Your task to perform on an android device: toggle pop-ups in chrome Image 0: 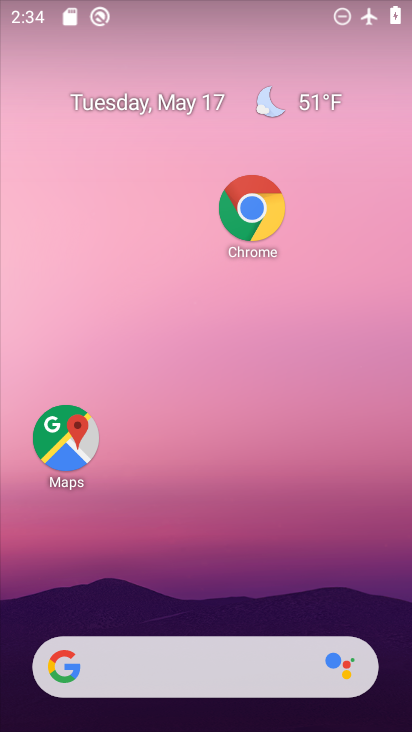
Step 0: click (257, 223)
Your task to perform on an android device: toggle pop-ups in chrome Image 1: 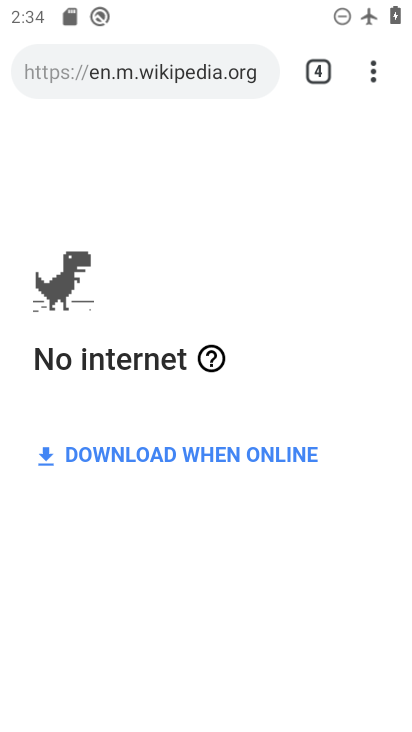
Step 1: drag from (378, 67) to (108, 581)
Your task to perform on an android device: toggle pop-ups in chrome Image 2: 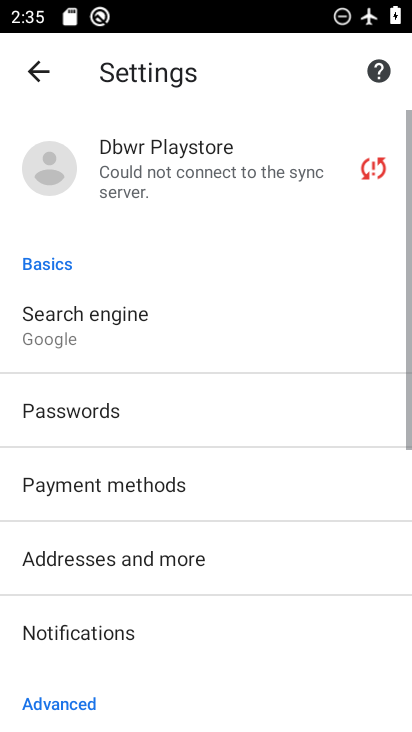
Step 2: drag from (121, 580) to (117, 133)
Your task to perform on an android device: toggle pop-ups in chrome Image 3: 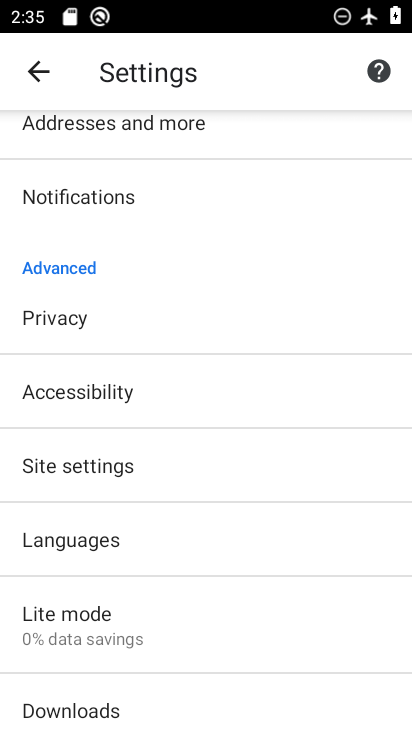
Step 3: drag from (100, 625) to (89, 447)
Your task to perform on an android device: toggle pop-ups in chrome Image 4: 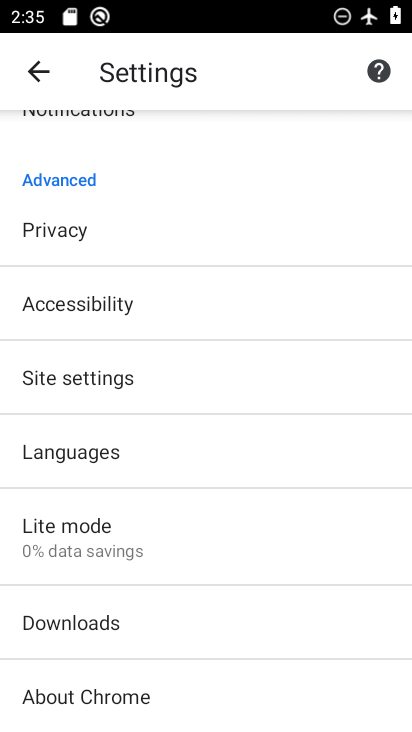
Step 4: click (93, 360)
Your task to perform on an android device: toggle pop-ups in chrome Image 5: 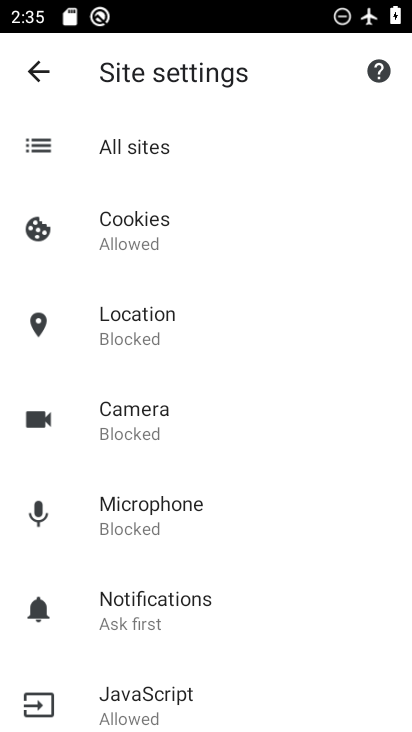
Step 5: drag from (160, 606) to (158, 154)
Your task to perform on an android device: toggle pop-ups in chrome Image 6: 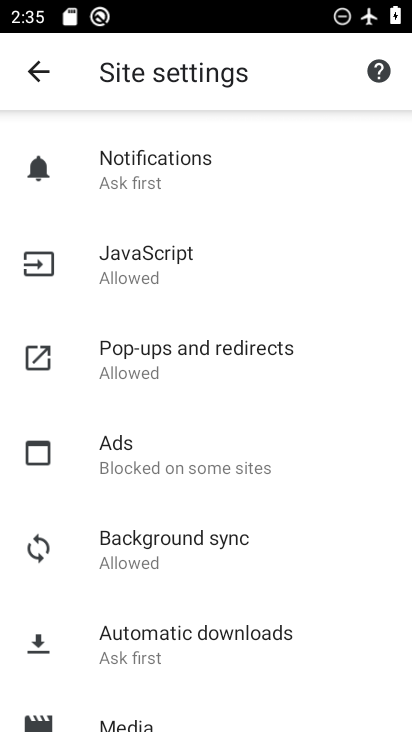
Step 6: click (202, 351)
Your task to perform on an android device: toggle pop-ups in chrome Image 7: 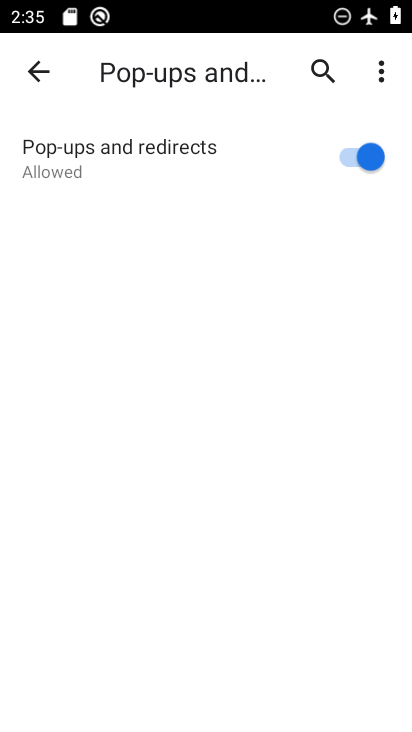
Step 7: click (348, 144)
Your task to perform on an android device: toggle pop-ups in chrome Image 8: 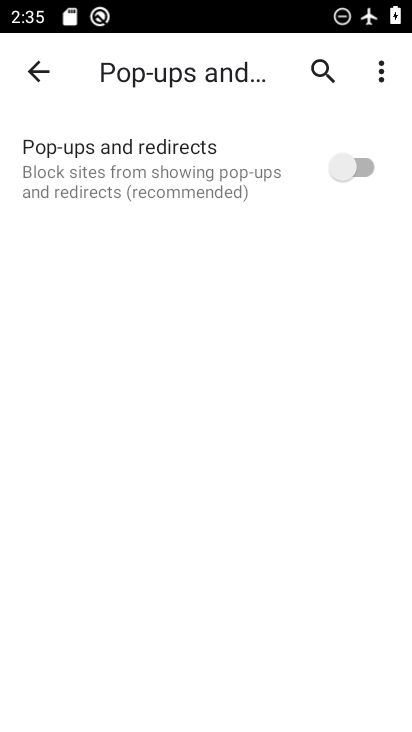
Step 8: task complete